Your task to perform on an android device: Is it going to rain this weekend? Image 0: 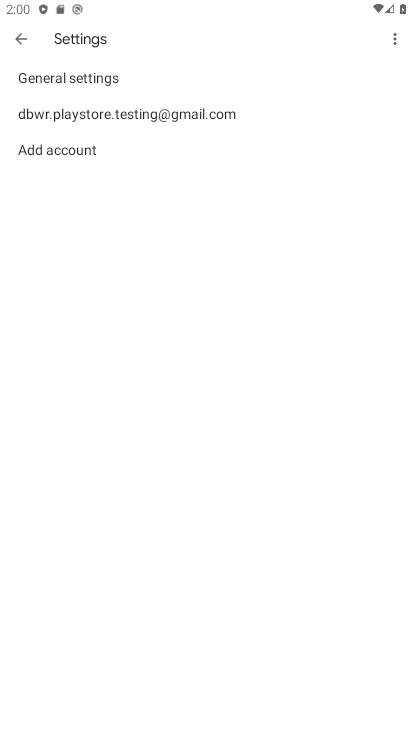
Step 0: press home button
Your task to perform on an android device: Is it going to rain this weekend? Image 1: 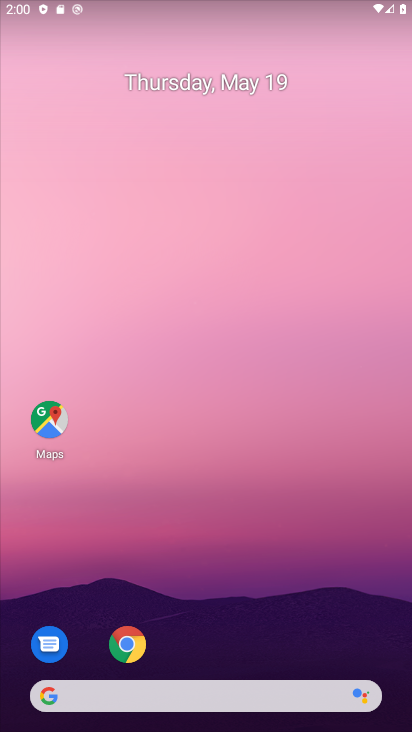
Step 1: drag from (198, 620) to (225, 303)
Your task to perform on an android device: Is it going to rain this weekend? Image 2: 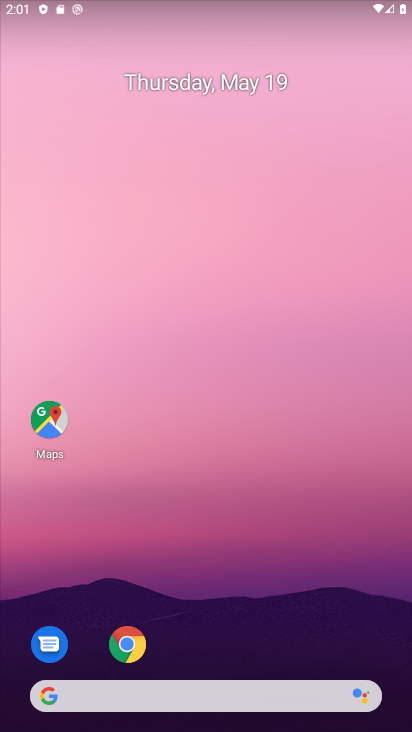
Step 2: drag from (146, 634) to (195, 299)
Your task to perform on an android device: Is it going to rain this weekend? Image 3: 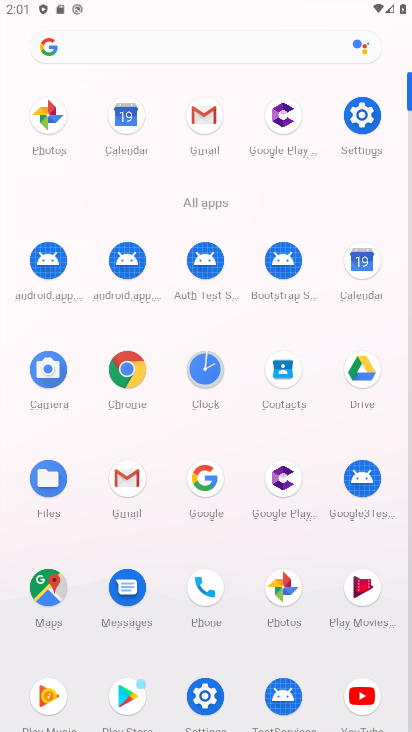
Step 3: click (119, 367)
Your task to perform on an android device: Is it going to rain this weekend? Image 4: 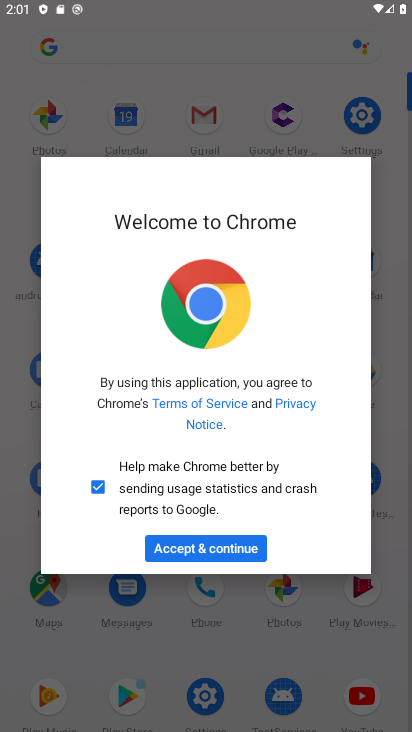
Step 4: click (208, 541)
Your task to perform on an android device: Is it going to rain this weekend? Image 5: 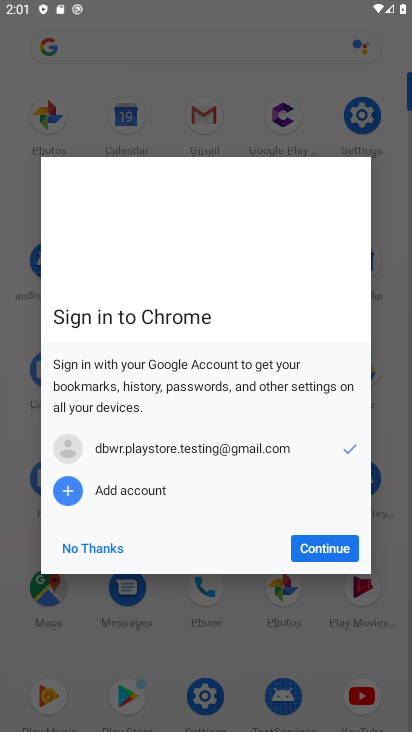
Step 5: click (301, 540)
Your task to perform on an android device: Is it going to rain this weekend? Image 6: 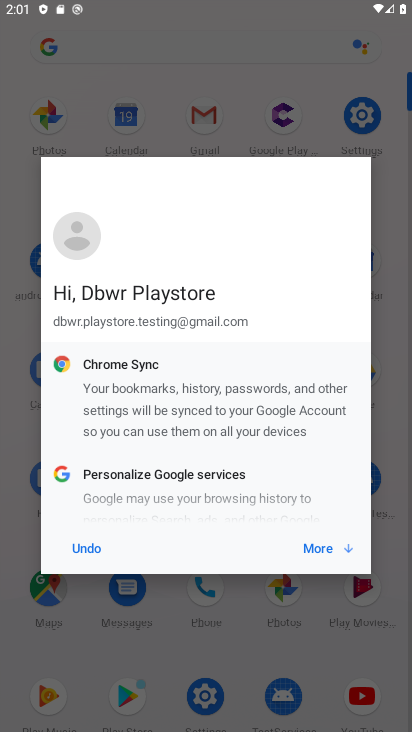
Step 6: click (321, 551)
Your task to perform on an android device: Is it going to rain this weekend? Image 7: 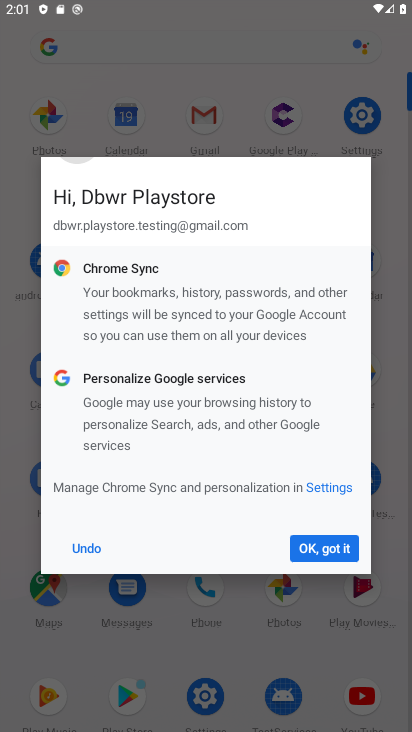
Step 7: click (315, 544)
Your task to perform on an android device: Is it going to rain this weekend? Image 8: 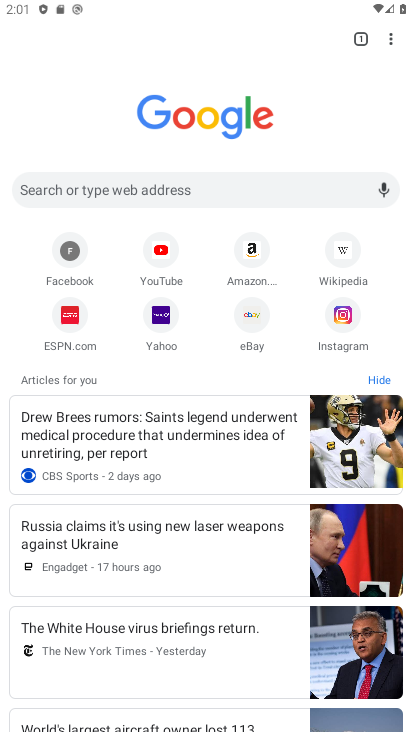
Step 8: click (215, 184)
Your task to perform on an android device: Is it going to rain this weekend? Image 9: 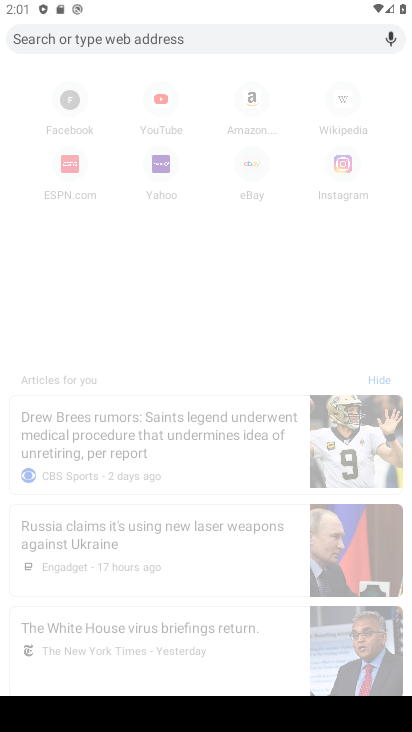
Step 9: type "Is it going to rain this weekend?"
Your task to perform on an android device: Is it going to rain this weekend? Image 10: 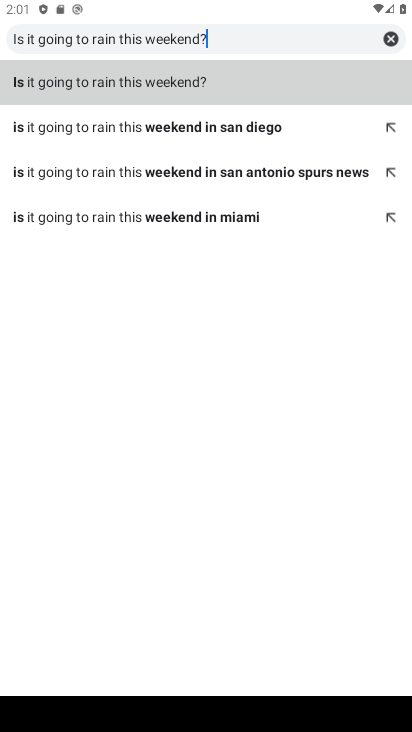
Step 10: click (172, 129)
Your task to perform on an android device: Is it going to rain this weekend? Image 11: 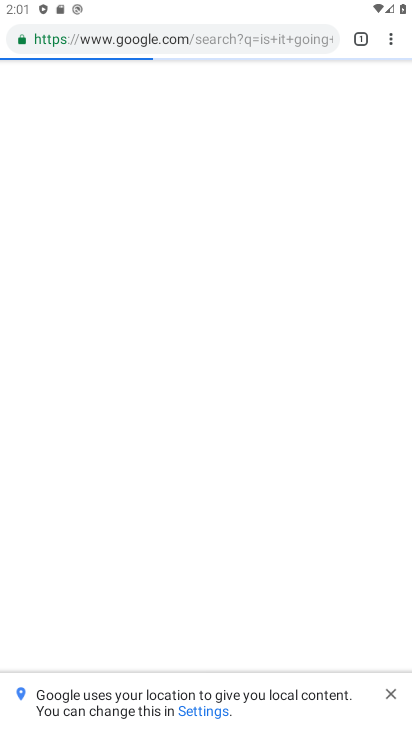
Step 11: task complete